Your task to perform on an android device: change the upload size in google photos Image 0: 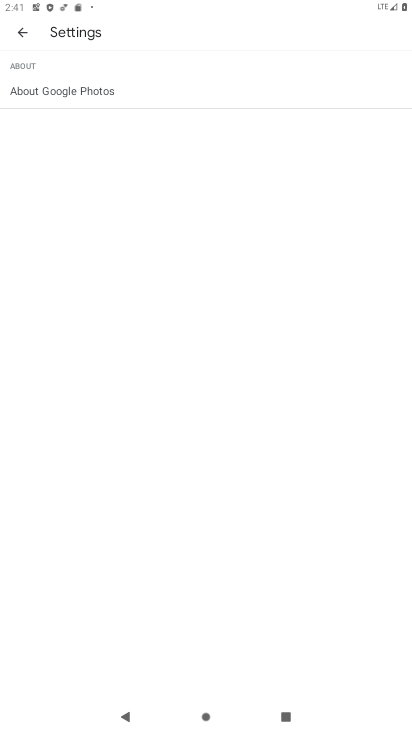
Step 0: press home button
Your task to perform on an android device: change the upload size in google photos Image 1: 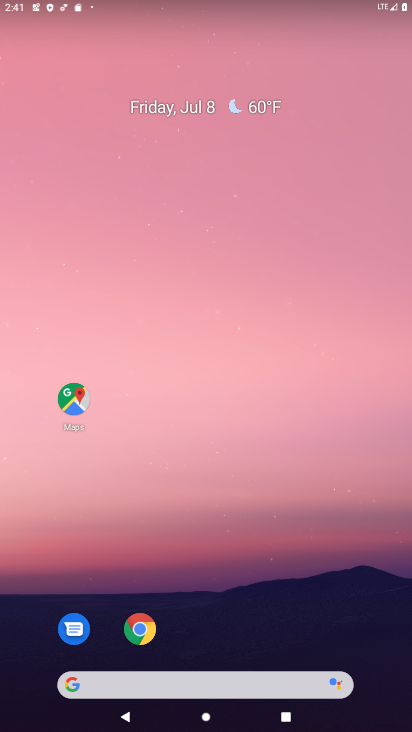
Step 1: drag from (201, 622) to (204, 220)
Your task to perform on an android device: change the upload size in google photos Image 2: 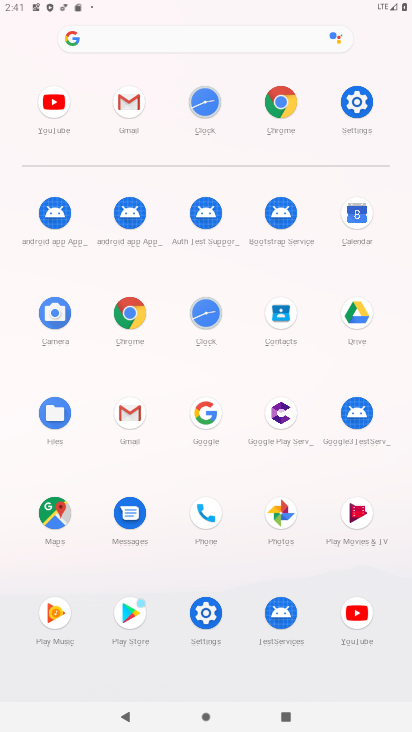
Step 2: click (276, 514)
Your task to perform on an android device: change the upload size in google photos Image 3: 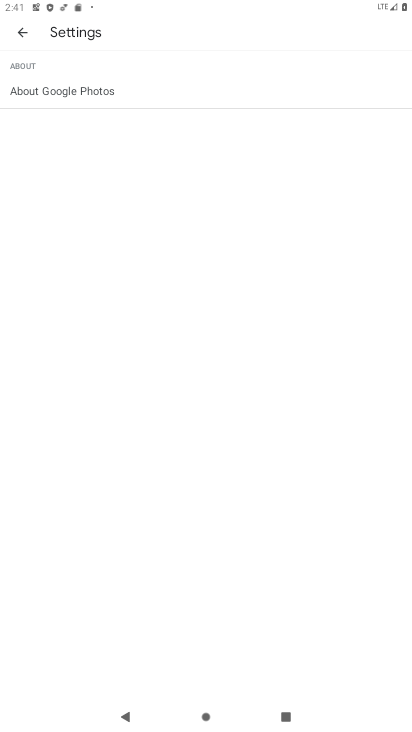
Step 3: click (18, 29)
Your task to perform on an android device: change the upload size in google photos Image 4: 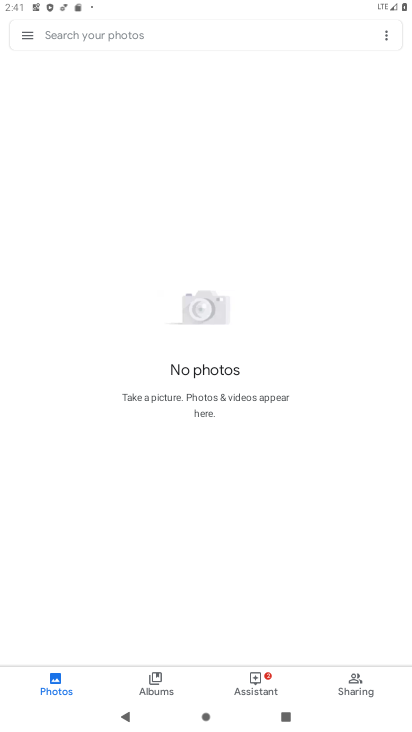
Step 4: click (26, 39)
Your task to perform on an android device: change the upload size in google photos Image 5: 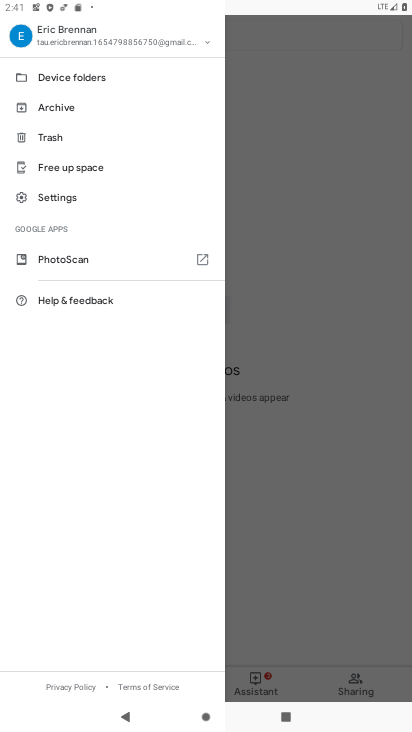
Step 5: click (61, 203)
Your task to perform on an android device: change the upload size in google photos Image 6: 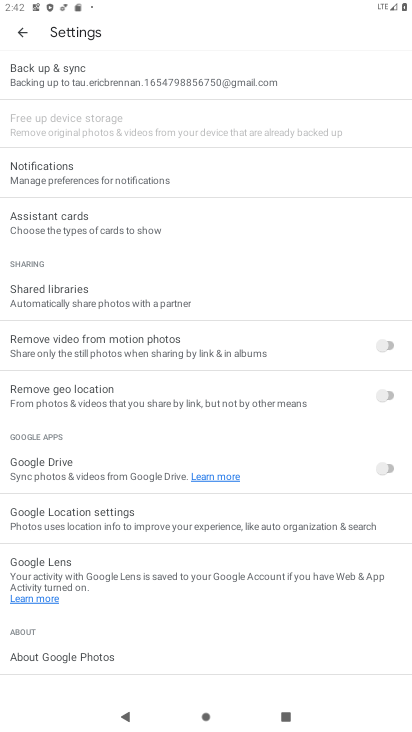
Step 6: click (73, 87)
Your task to perform on an android device: change the upload size in google photos Image 7: 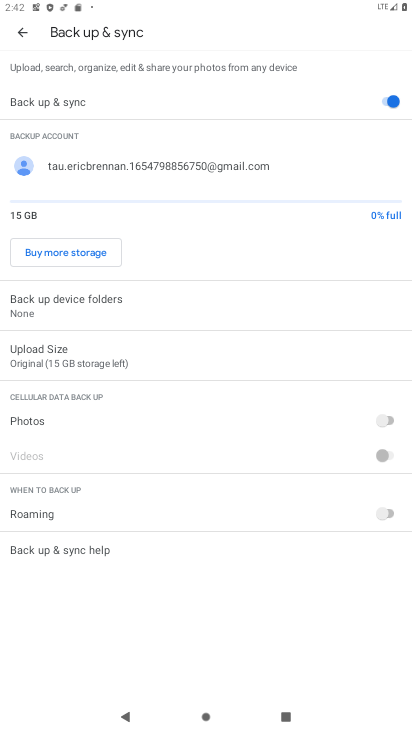
Step 7: click (111, 369)
Your task to perform on an android device: change the upload size in google photos Image 8: 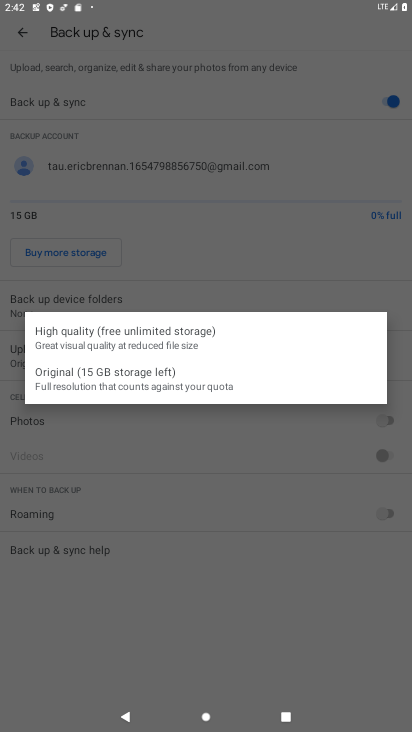
Step 8: click (122, 381)
Your task to perform on an android device: change the upload size in google photos Image 9: 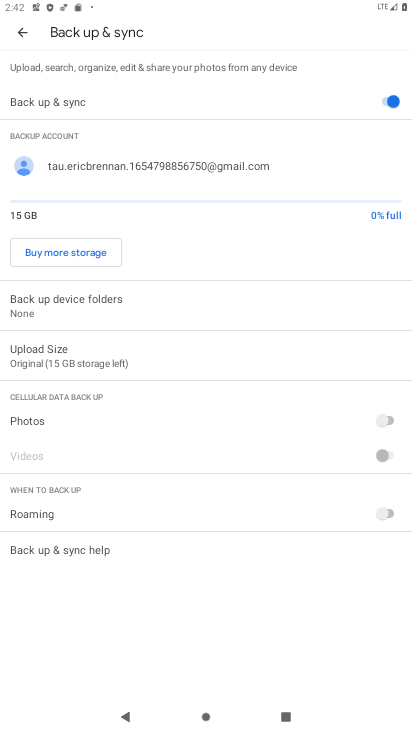
Step 9: task complete